Your task to perform on an android device: Turn off the flashlight Image 0: 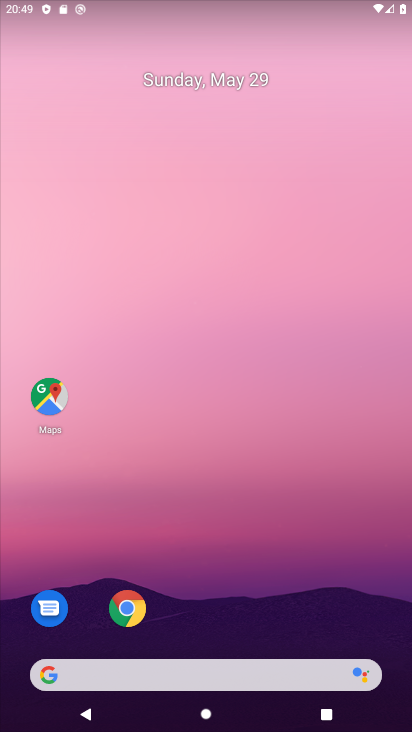
Step 0: drag from (353, 600) to (342, 271)
Your task to perform on an android device: Turn off the flashlight Image 1: 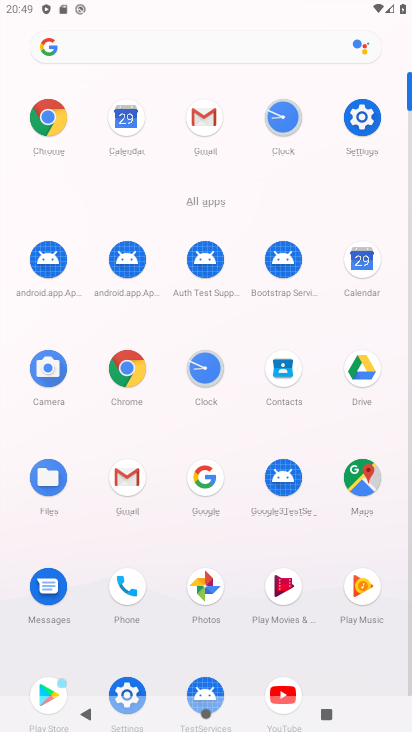
Step 1: click (122, 378)
Your task to perform on an android device: Turn off the flashlight Image 2: 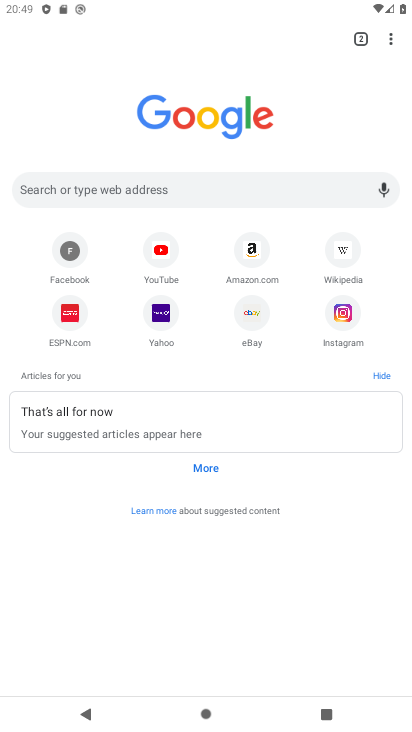
Step 2: task complete